Your task to perform on an android device: Open the web browser Image 0: 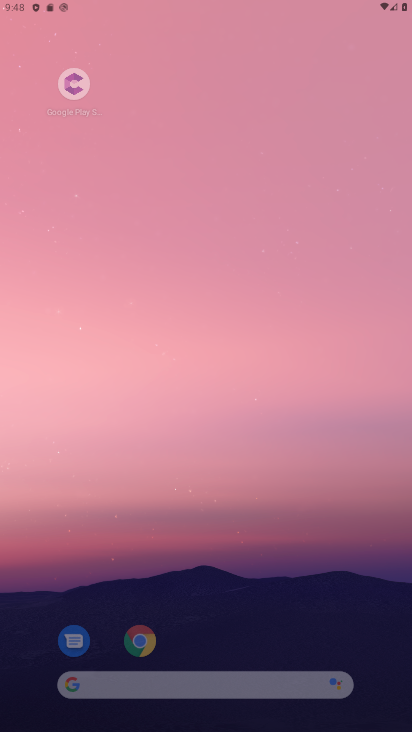
Step 0: click (141, 270)
Your task to perform on an android device: Open the web browser Image 1: 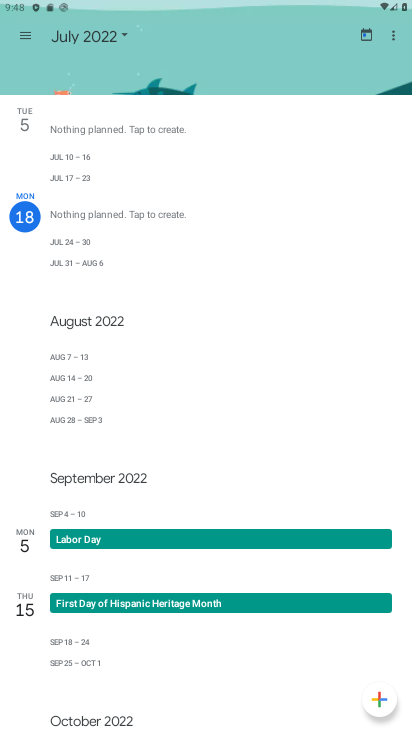
Step 1: press back button
Your task to perform on an android device: Open the web browser Image 2: 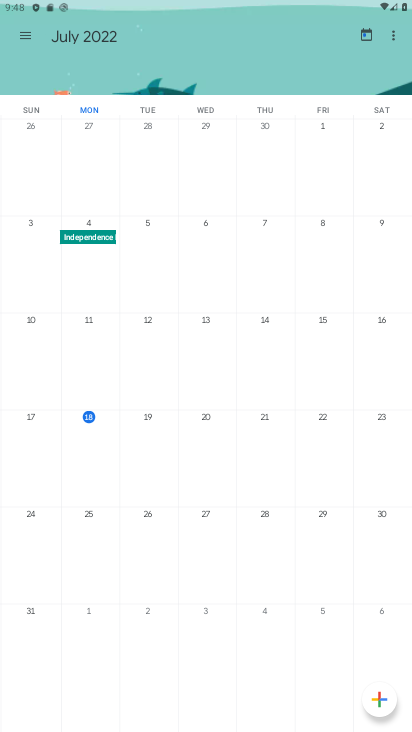
Step 2: press back button
Your task to perform on an android device: Open the web browser Image 3: 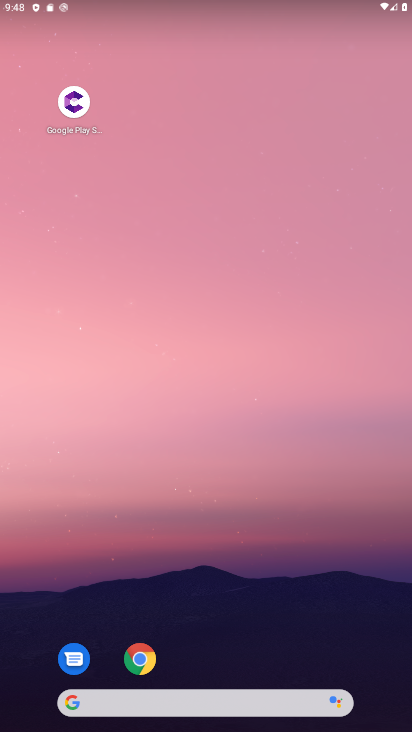
Step 3: drag from (234, 627) to (121, 114)
Your task to perform on an android device: Open the web browser Image 4: 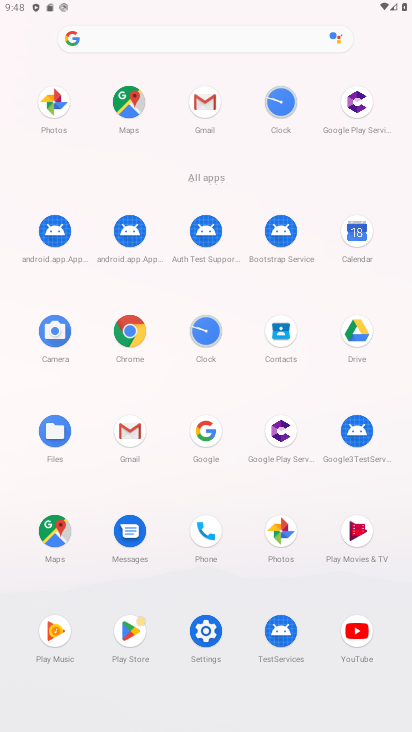
Step 4: click (129, 327)
Your task to perform on an android device: Open the web browser Image 5: 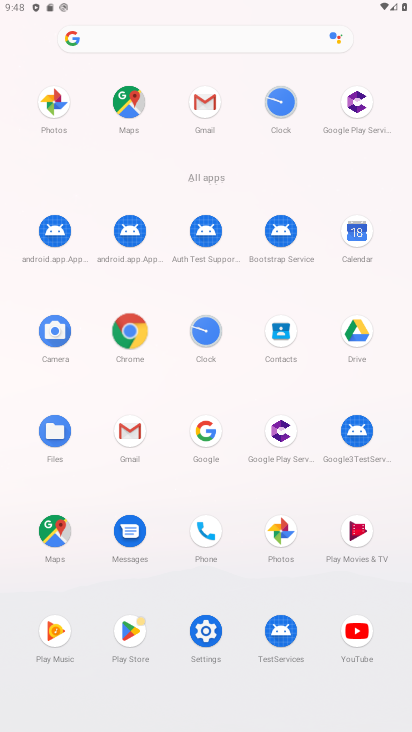
Step 5: click (129, 328)
Your task to perform on an android device: Open the web browser Image 6: 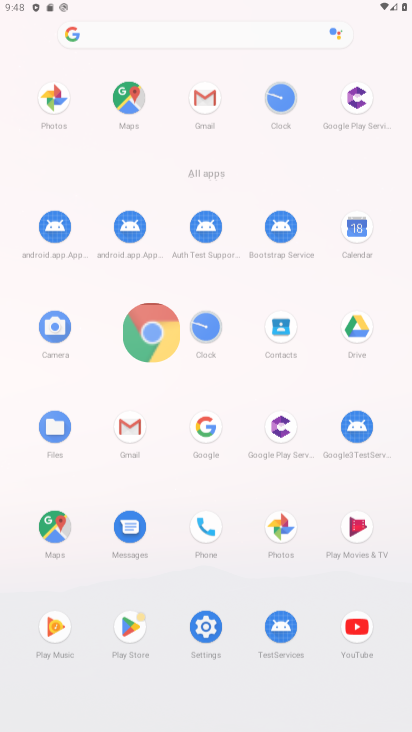
Step 6: click (131, 330)
Your task to perform on an android device: Open the web browser Image 7: 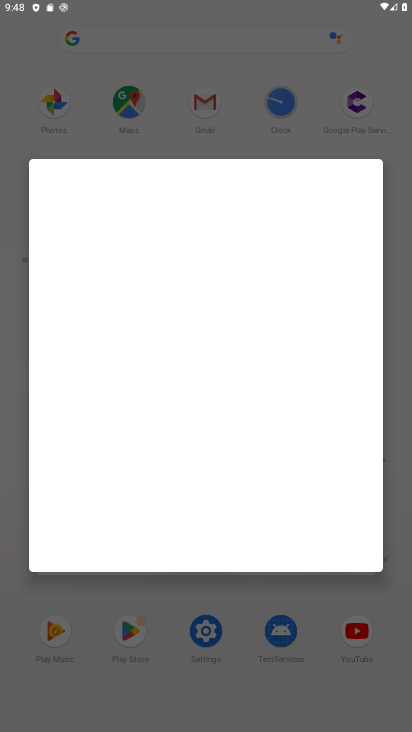
Step 7: drag from (196, 663) to (110, 47)
Your task to perform on an android device: Open the web browser Image 8: 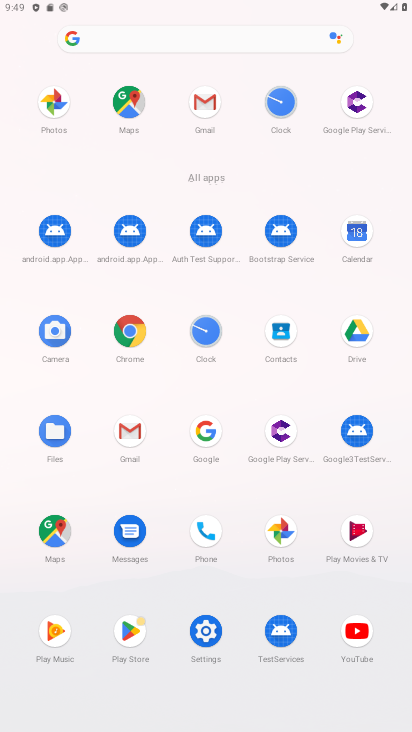
Step 8: click (134, 324)
Your task to perform on an android device: Open the web browser Image 9: 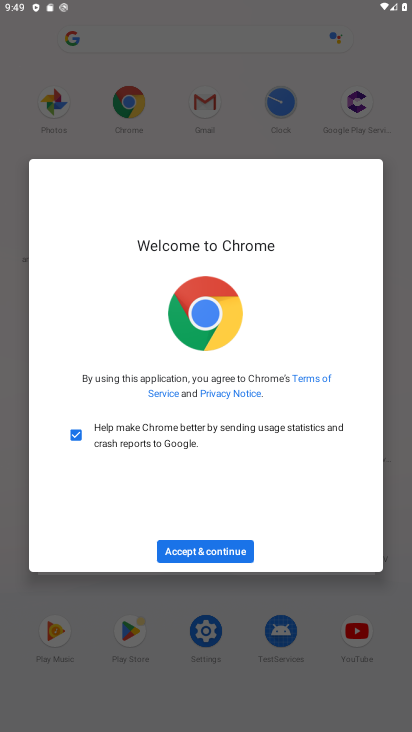
Step 9: click (203, 549)
Your task to perform on an android device: Open the web browser Image 10: 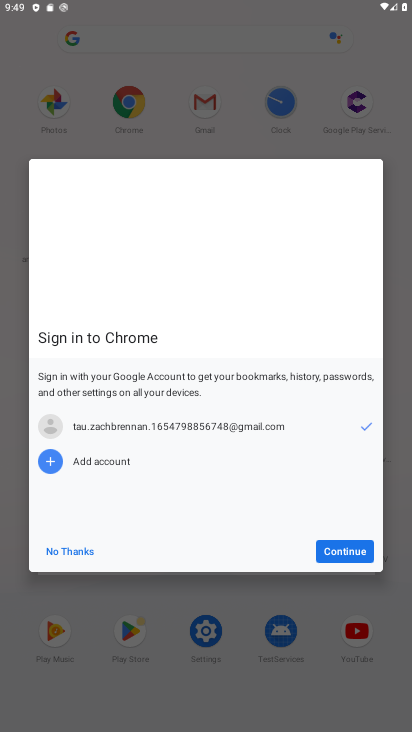
Step 10: click (338, 556)
Your task to perform on an android device: Open the web browser Image 11: 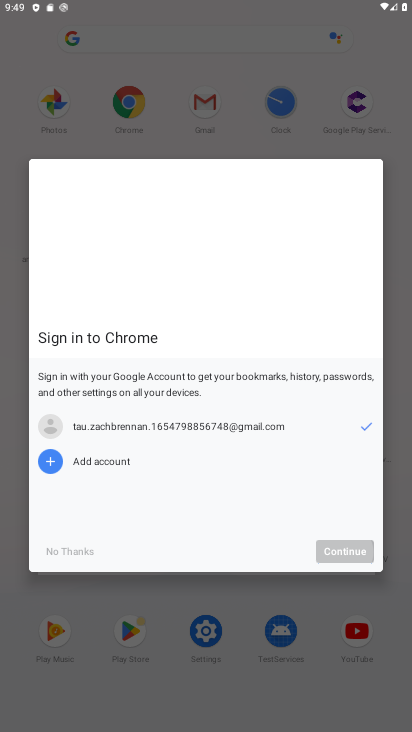
Step 11: click (335, 545)
Your task to perform on an android device: Open the web browser Image 12: 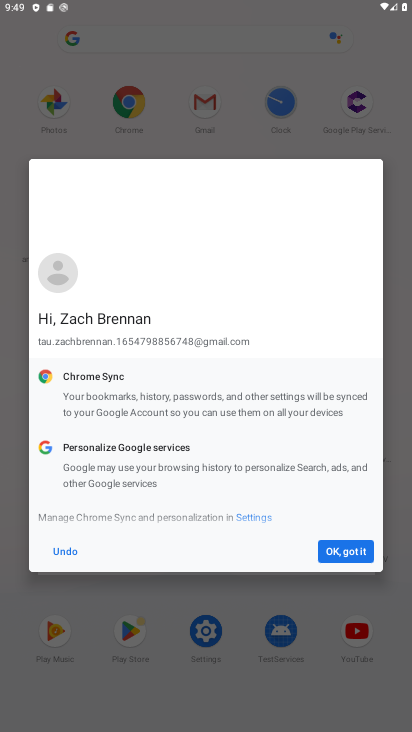
Step 12: click (335, 545)
Your task to perform on an android device: Open the web browser Image 13: 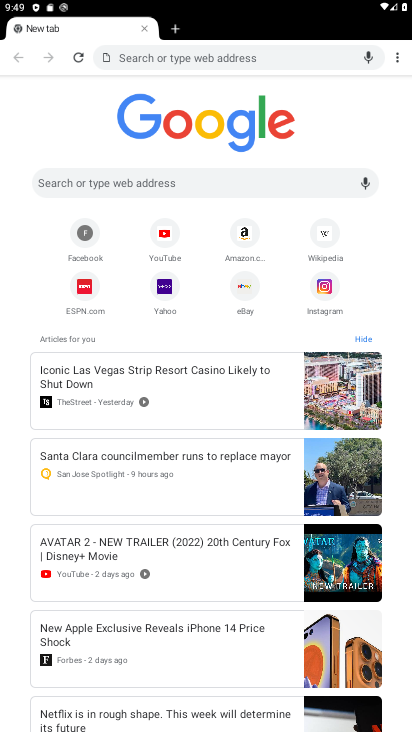
Step 13: task complete